Your task to perform on an android device: Open Maps and search for coffee Image 0: 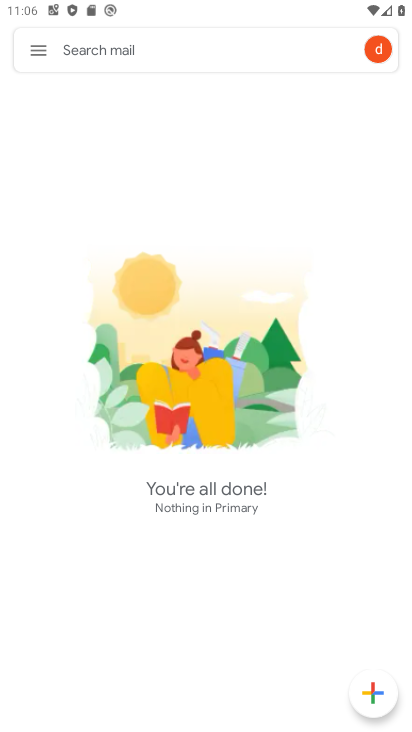
Step 0: press home button
Your task to perform on an android device: Open Maps and search for coffee Image 1: 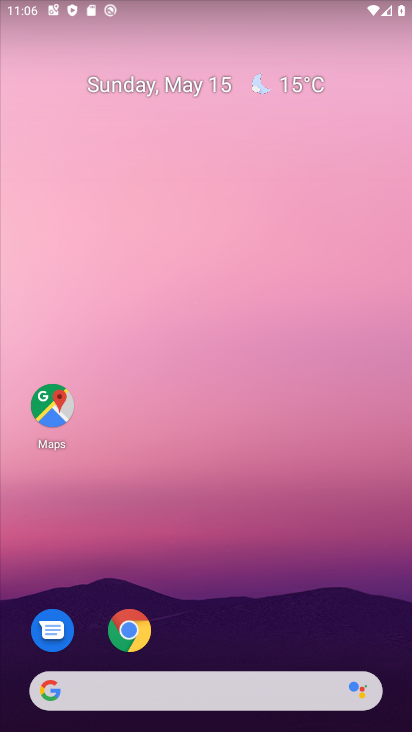
Step 1: drag from (207, 704) to (198, 186)
Your task to perform on an android device: Open Maps and search for coffee Image 2: 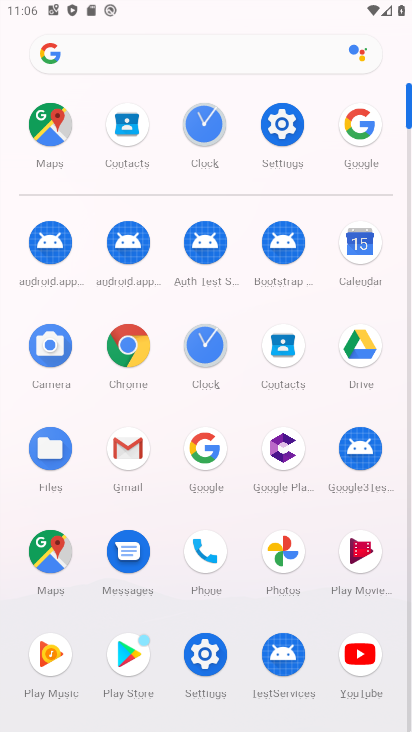
Step 2: click (51, 552)
Your task to perform on an android device: Open Maps and search for coffee Image 3: 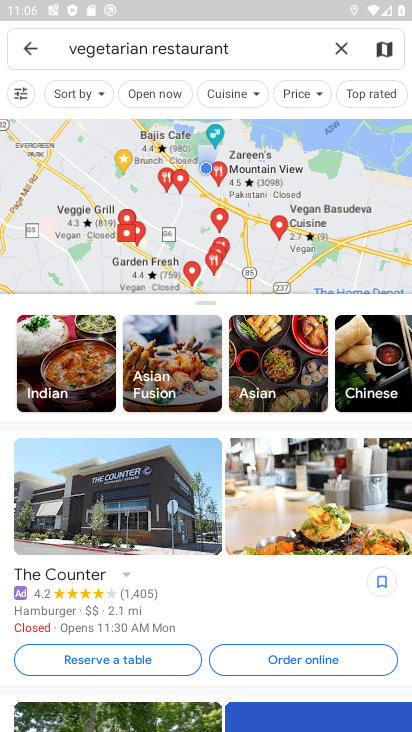
Step 3: click (338, 44)
Your task to perform on an android device: Open Maps and search for coffee Image 4: 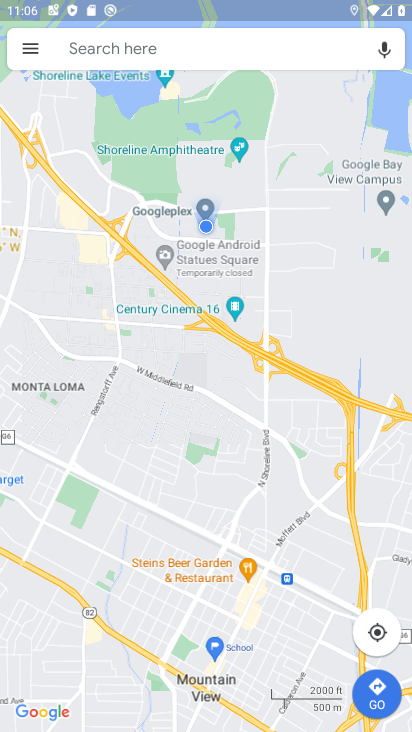
Step 4: click (233, 45)
Your task to perform on an android device: Open Maps and search for coffee Image 5: 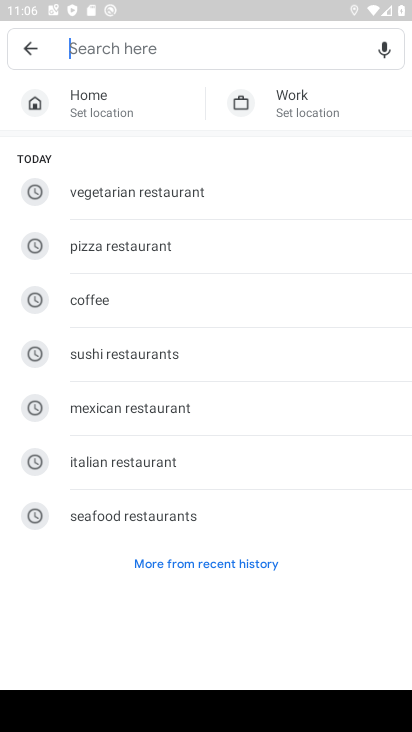
Step 5: type "coffee"
Your task to perform on an android device: Open Maps and search for coffee Image 6: 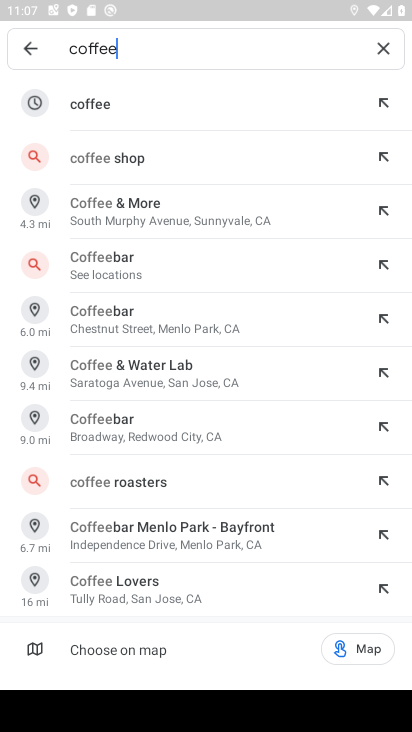
Step 6: click (94, 100)
Your task to perform on an android device: Open Maps and search for coffee Image 7: 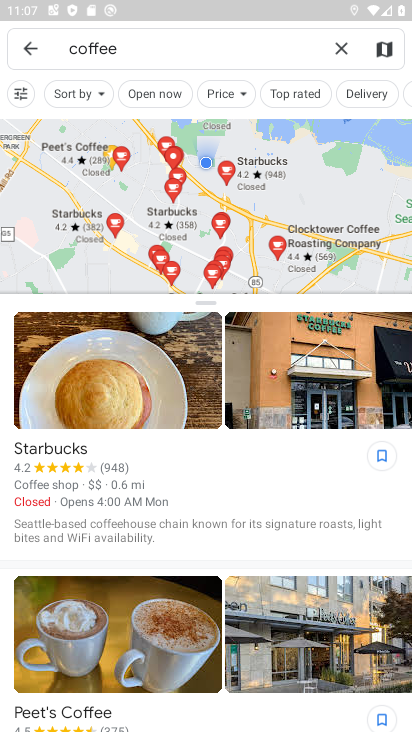
Step 7: task complete